Your task to perform on an android device: turn smart compose on in the gmail app Image 0: 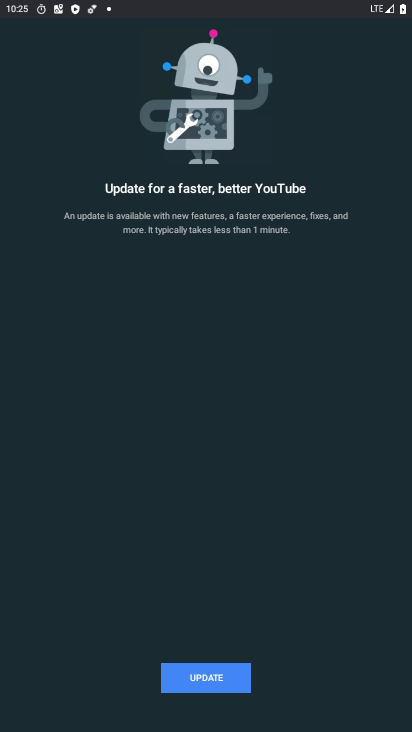
Step 0: press home button
Your task to perform on an android device: turn smart compose on in the gmail app Image 1: 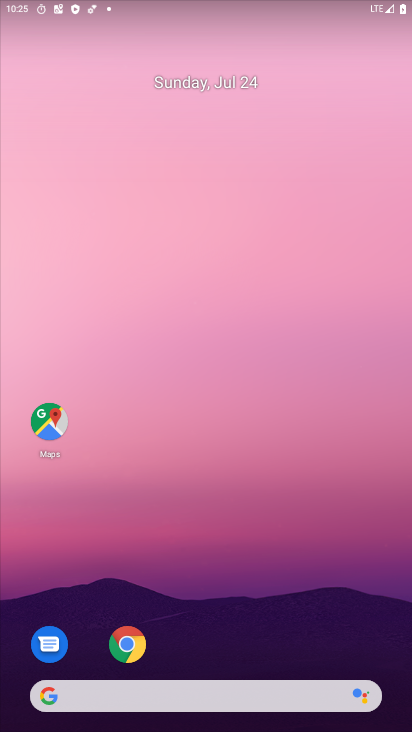
Step 1: drag from (264, 393) to (264, 275)
Your task to perform on an android device: turn smart compose on in the gmail app Image 2: 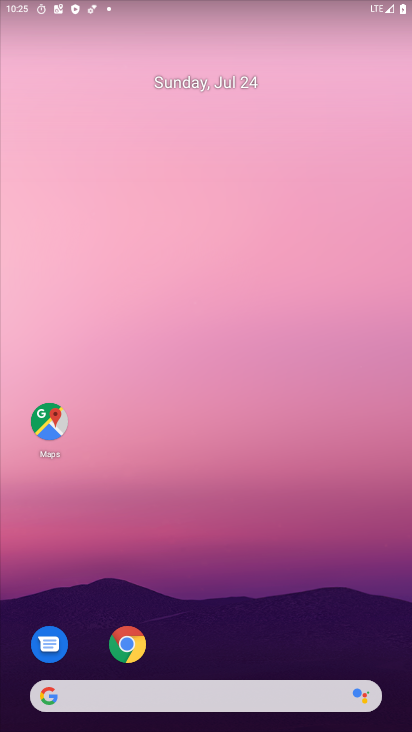
Step 2: drag from (267, 655) to (277, 188)
Your task to perform on an android device: turn smart compose on in the gmail app Image 3: 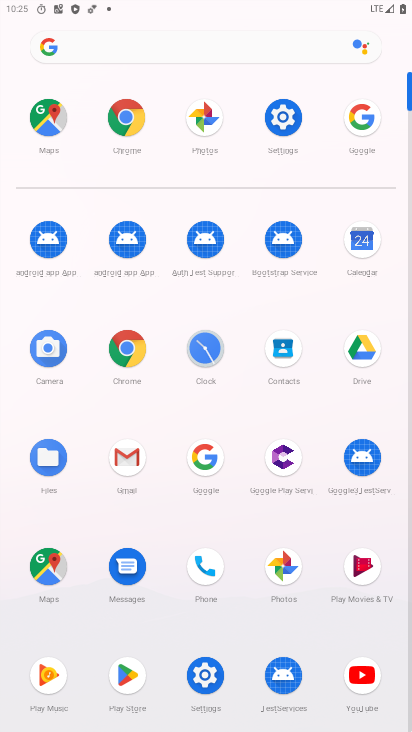
Step 3: click (130, 462)
Your task to perform on an android device: turn smart compose on in the gmail app Image 4: 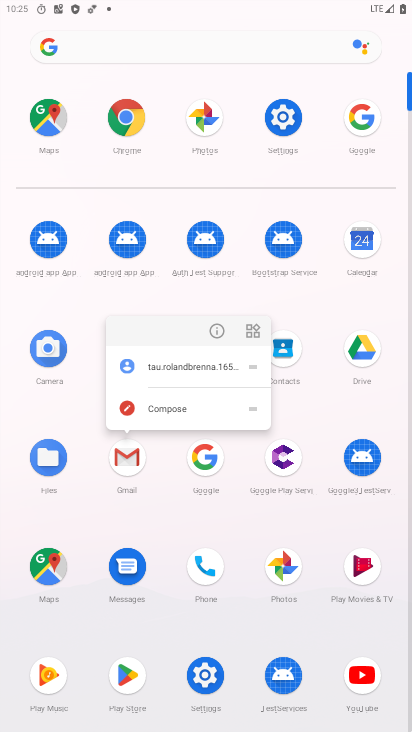
Step 4: click (130, 462)
Your task to perform on an android device: turn smart compose on in the gmail app Image 5: 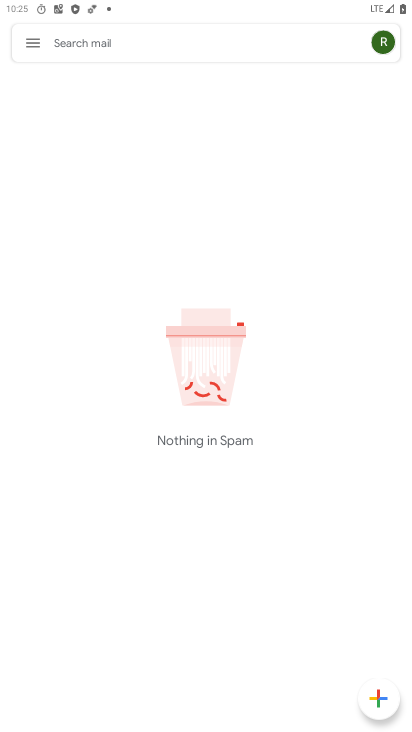
Step 5: click (35, 41)
Your task to perform on an android device: turn smart compose on in the gmail app Image 6: 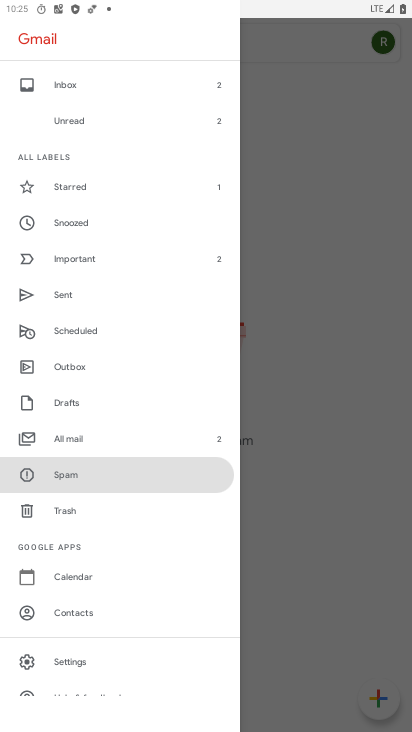
Step 6: click (60, 657)
Your task to perform on an android device: turn smart compose on in the gmail app Image 7: 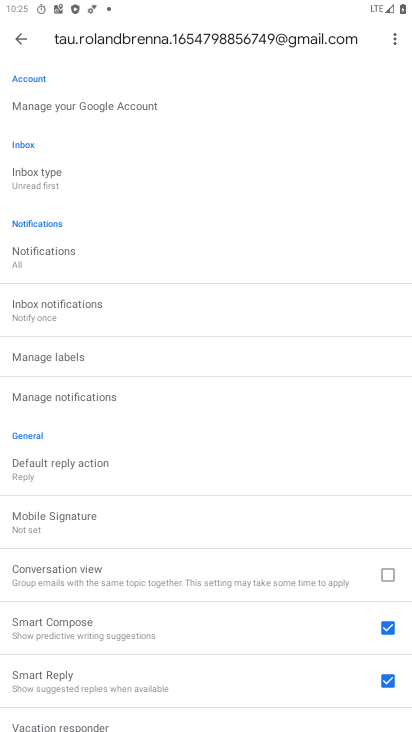
Step 7: task complete